Your task to perform on an android device: Open Youtube and go to "Your channel" Image 0: 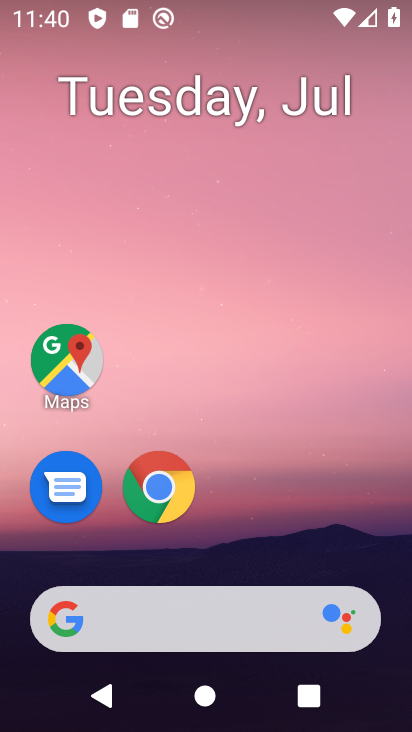
Step 0: drag from (388, 570) to (287, 111)
Your task to perform on an android device: Open Youtube and go to "Your channel" Image 1: 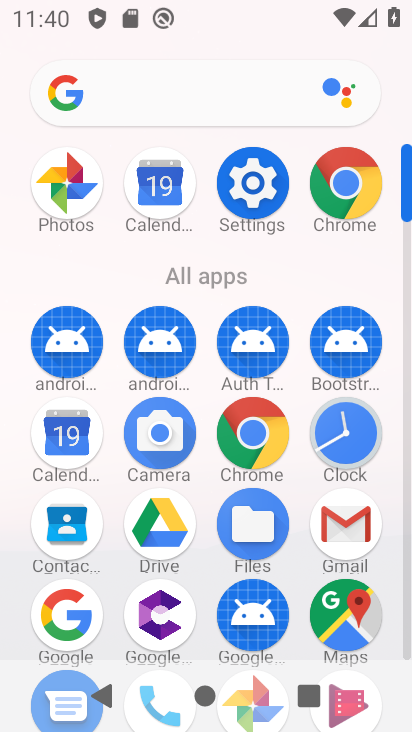
Step 1: click (407, 641)
Your task to perform on an android device: Open Youtube and go to "Your channel" Image 2: 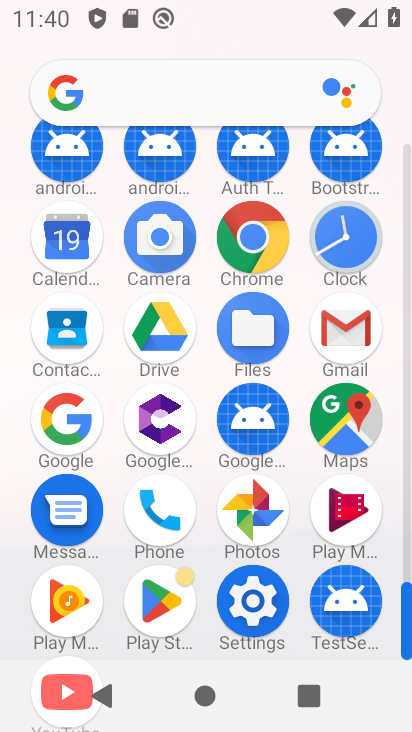
Step 2: click (65, 657)
Your task to perform on an android device: Open Youtube and go to "Your channel" Image 3: 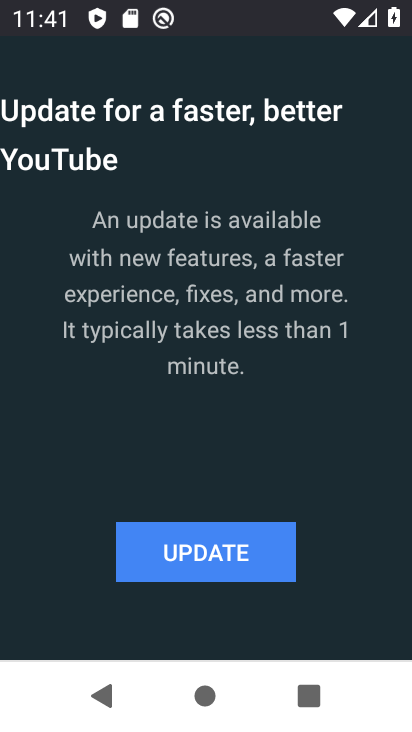
Step 3: click (234, 563)
Your task to perform on an android device: Open Youtube and go to "Your channel" Image 4: 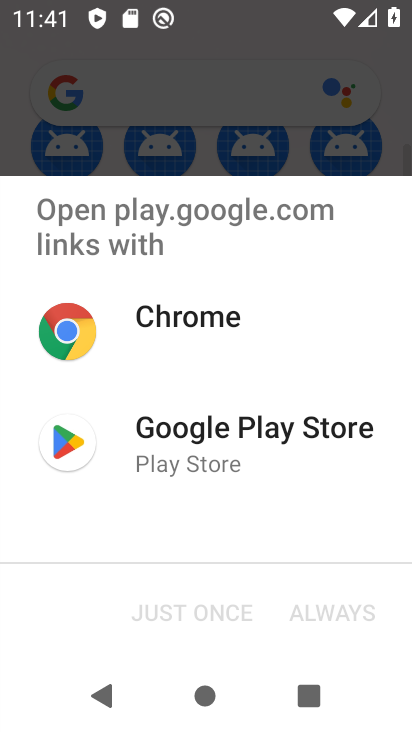
Step 4: click (267, 456)
Your task to perform on an android device: Open Youtube and go to "Your channel" Image 5: 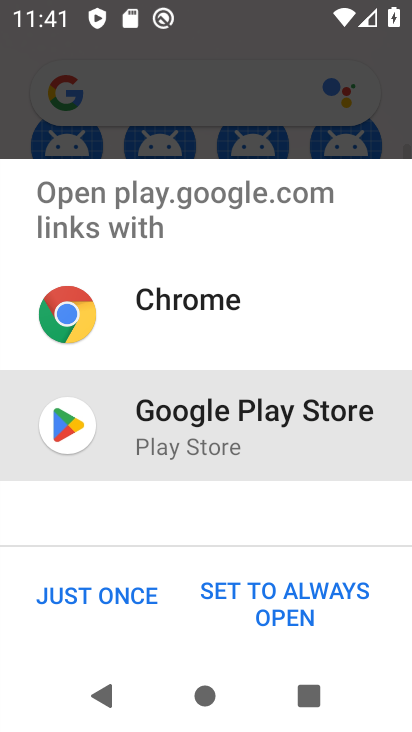
Step 5: click (140, 603)
Your task to perform on an android device: Open Youtube and go to "Your channel" Image 6: 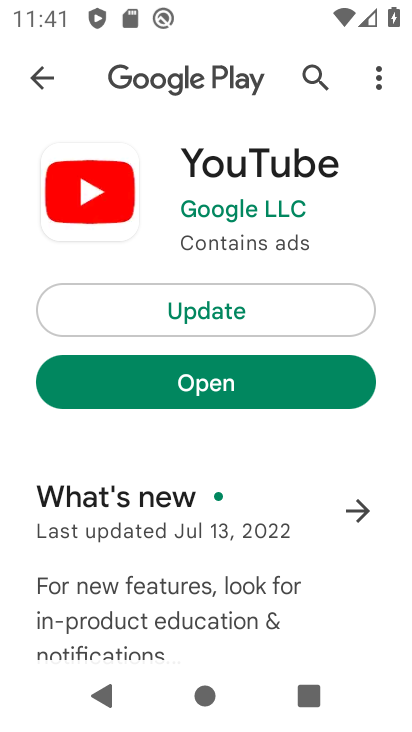
Step 6: click (190, 314)
Your task to perform on an android device: Open Youtube and go to "Your channel" Image 7: 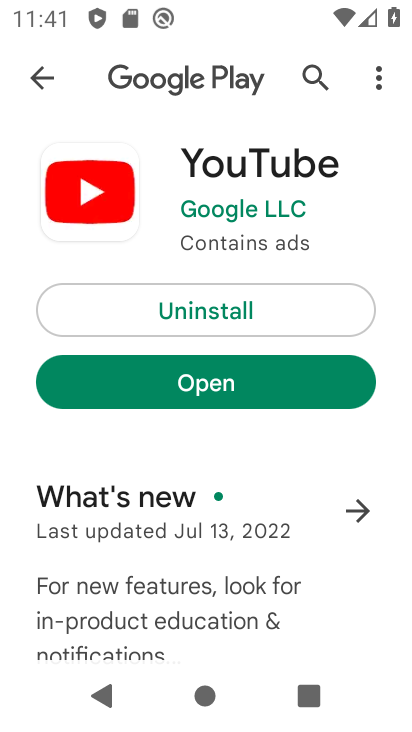
Step 7: click (261, 395)
Your task to perform on an android device: Open Youtube and go to "Your channel" Image 8: 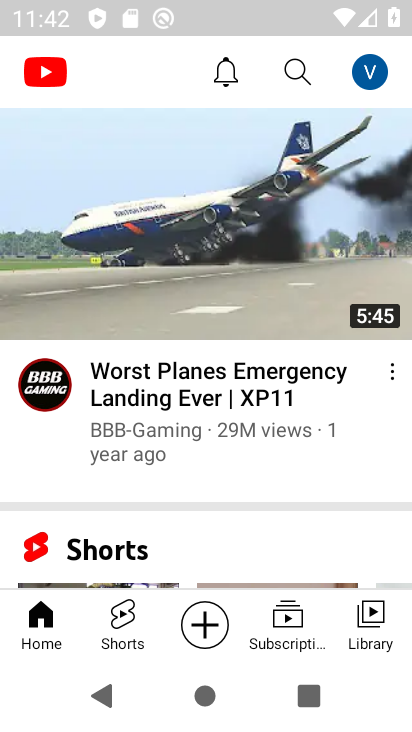
Step 8: click (374, 80)
Your task to perform on an android device: Open Youtube and go to "Your channel" Image 9: 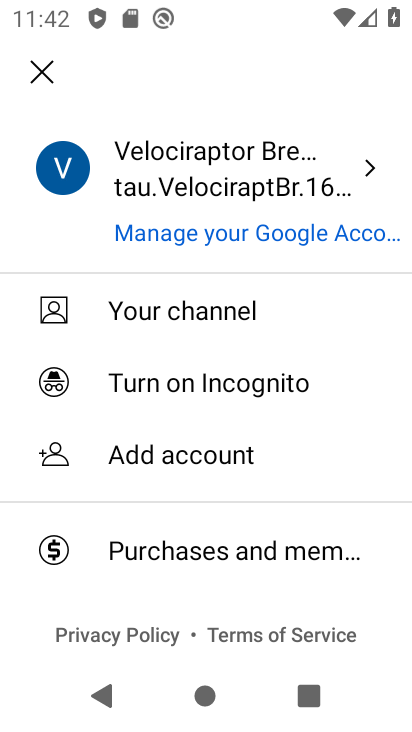
Step 9: click (190, 312)
Your task to perform on an android device: Open Youtube and go to "Your channel" Image 10: 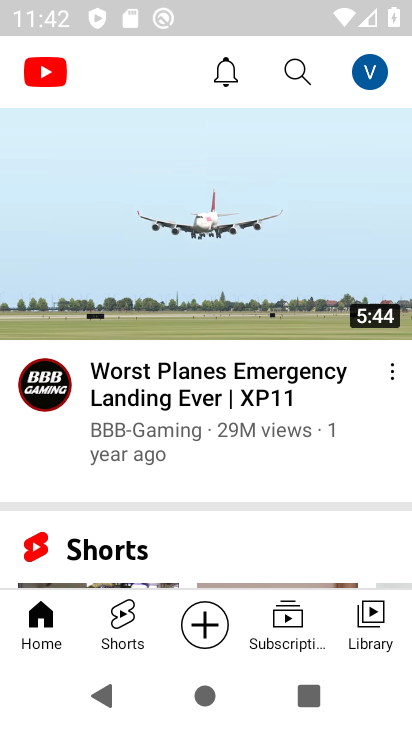
Step 10: task complete